Your task to perform on an android device: change your default location settings in chrome Image 0: 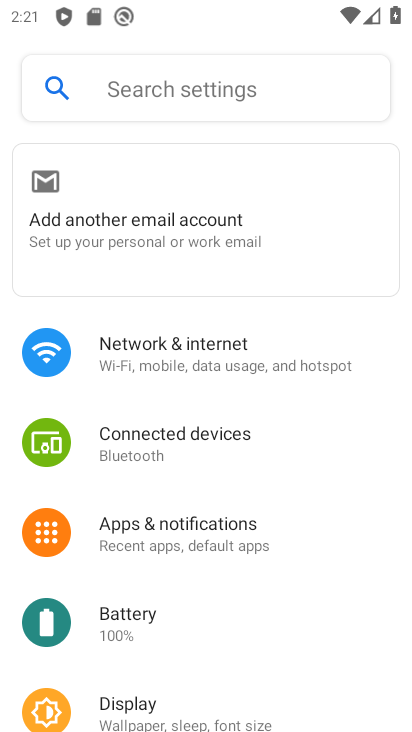
Step 0: press home button
Your task to perform on an android device: change your default location settings in chrome Image 1: 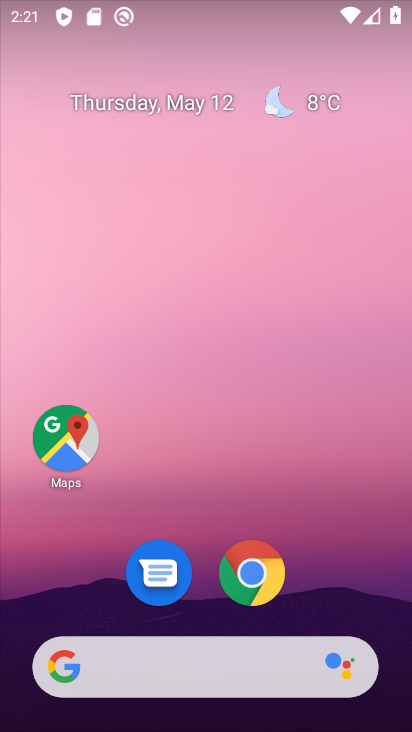
Step 1: click (259, 579)
Your task to perform on an android device: change your default location settings in chrome Image 2: 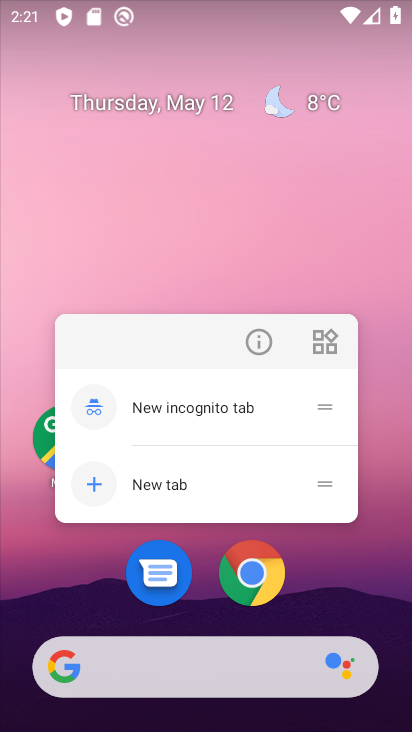
Step 2: click (279, 579)
Your task to perform on an android device: change your default location settings in chrome Image 3: 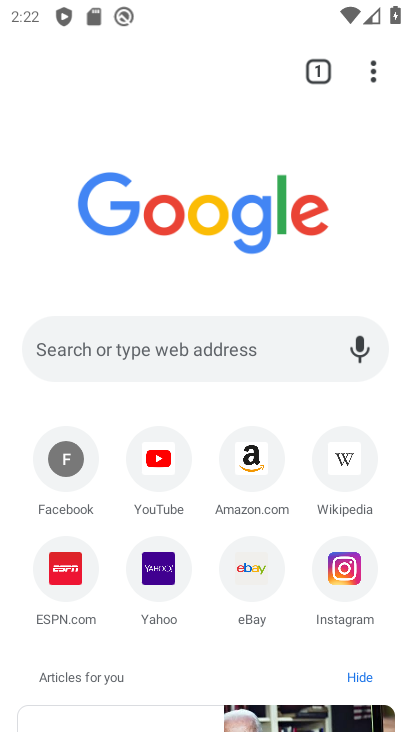
Step 3: drag from (371, 70) to (86, 599)
Your task to perform on an android device: change your default location settings in chrome Image 4: 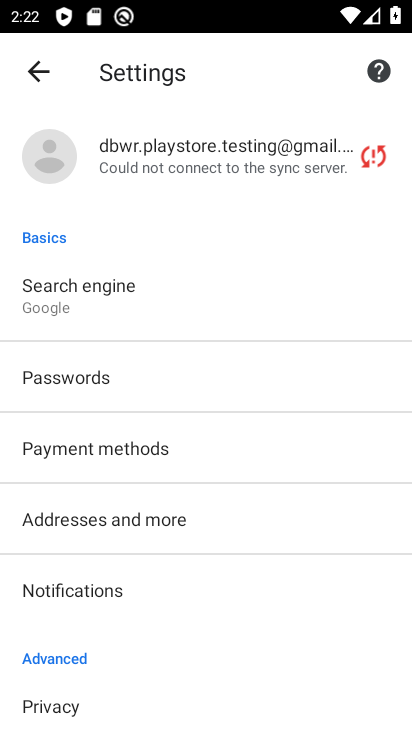
Step 4: drag from (214, 676) to (235, 299)
Your task to perform on an android device: change your default location settings in chrome Image 5: 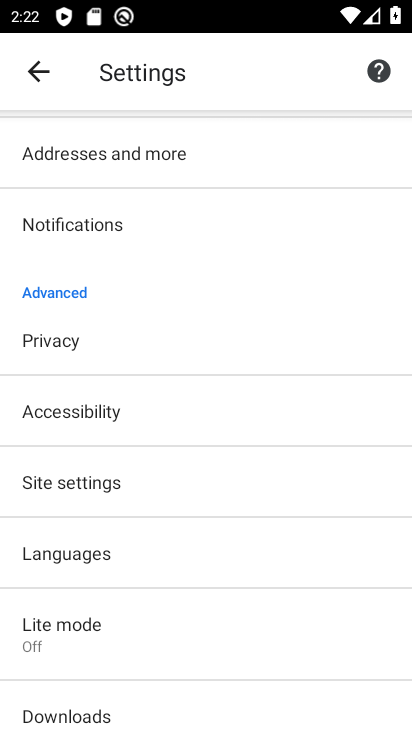
Step 5: click (88, 479)
Your task to perform on an android device: change your default location settings in chrome Image 6: 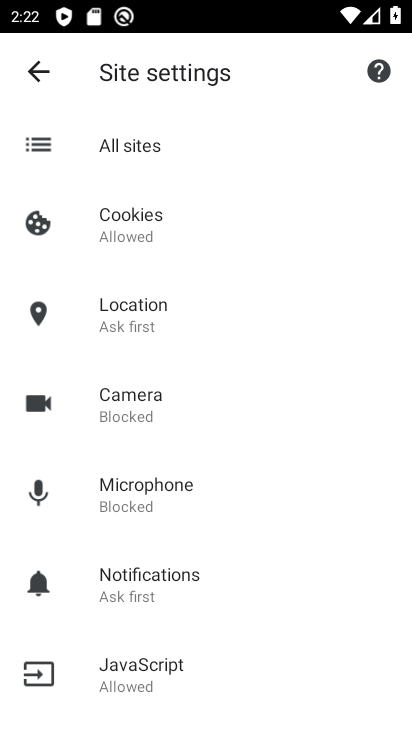
Step 6: click (112, 305)
Your task to perform on an android device: change your default location settings in chrome Image 7: 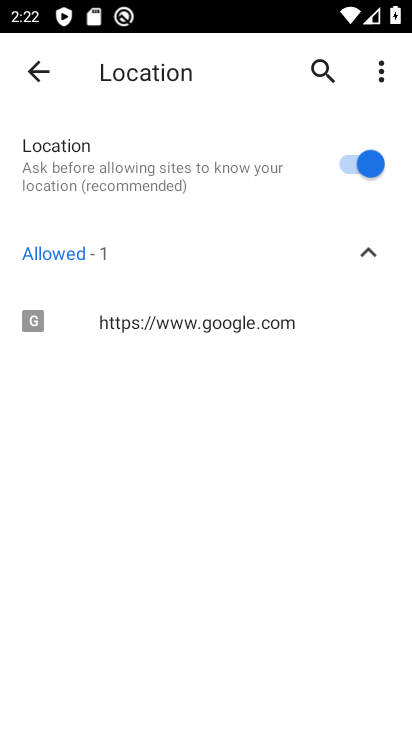
Step 7: click (347, 152)
Your task to perform on an android device: change your default location settings in chrome Image 8: 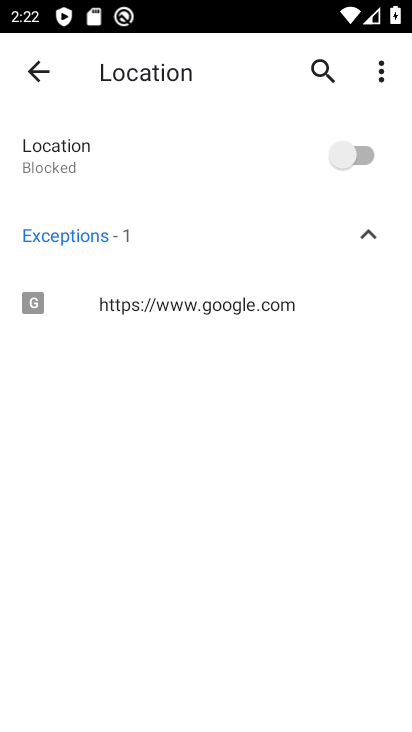
Step 8: task complete